Your task to perform on an android device: open app "DoorDash - Dasher" (install if not already installed) Image 0: 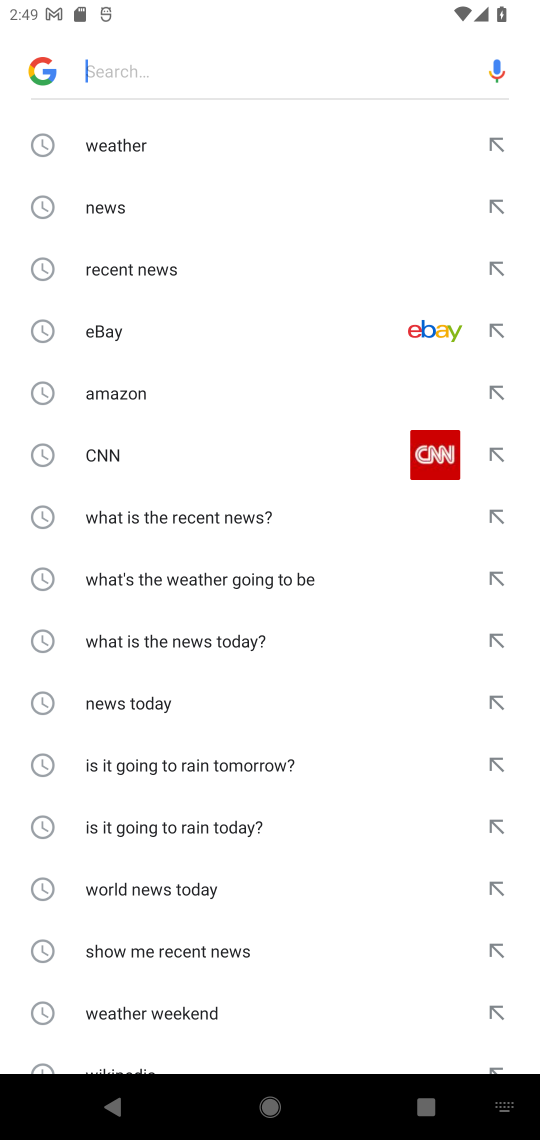
Step 0: press home button
Your task to perform on an android device: open app "DoorDash - Dasher" (install if not already installed) Image 1: 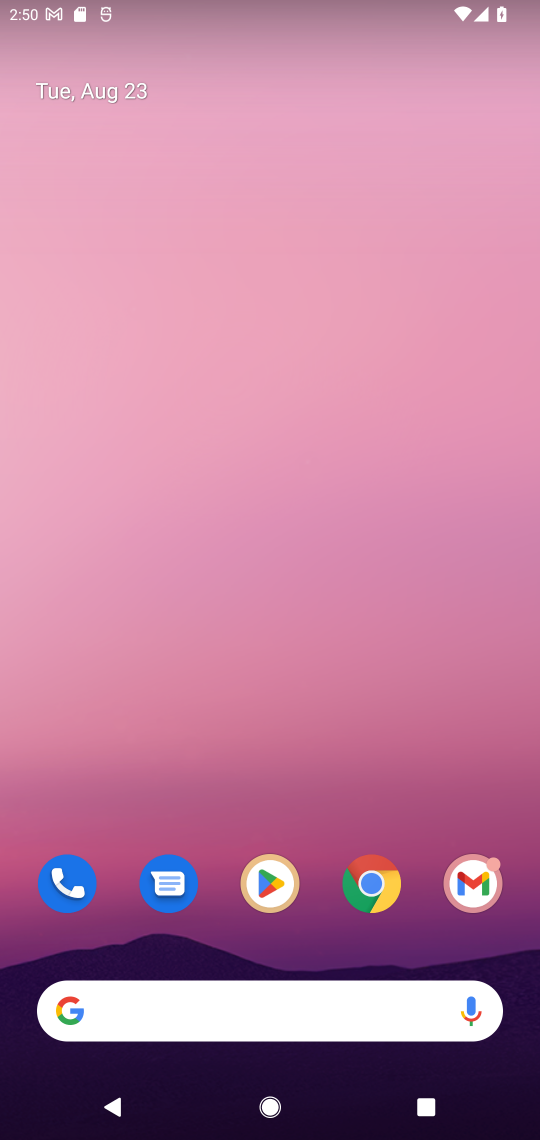
Step 1: drag from (193, 313) to (193, 245)
Your task to perform on an android device: open app "DoorDash - Dasher" (install if not already installed) Image 2: 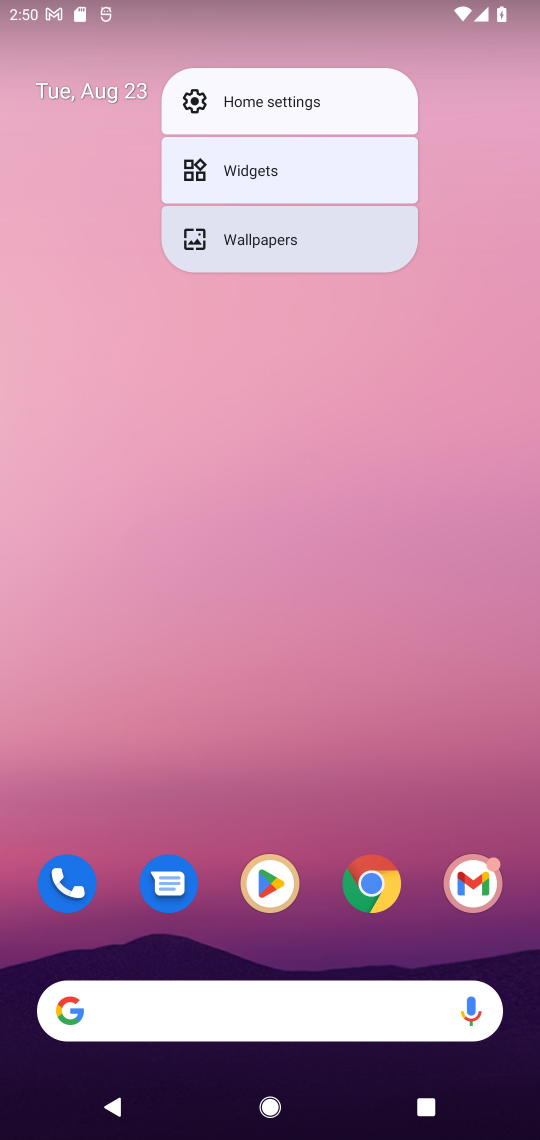
Step 2: click (205, 203)
Your task to perform on an android device: open app "DoorDash - Dasher" (install if not already installed) Image 3: 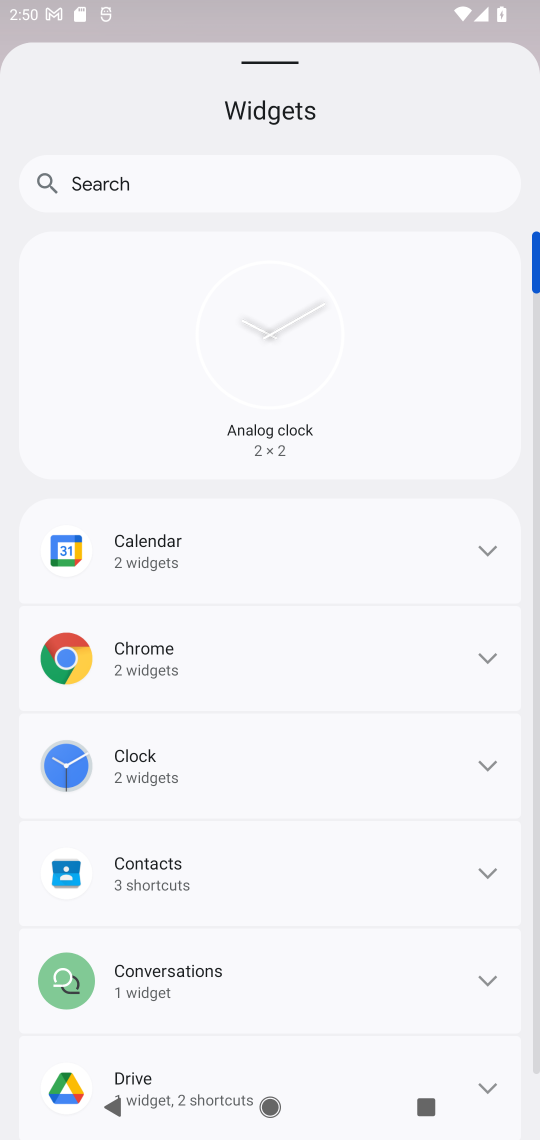
Step 3: press home button
Your task to perform on an android device: open app "DoorDash - Dasher" (install if not already installed) Image 4: 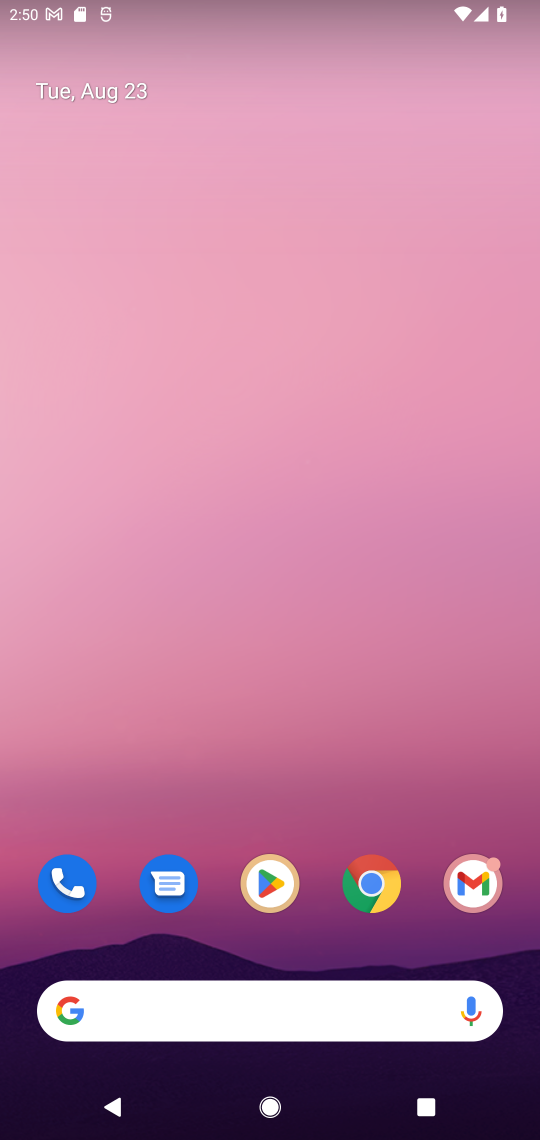
Step 4: drag from (260, 726) to (225, 339)
Your task to perform on an android device: open app "DoorDash - Dasher" (install if not already installed) Image 5: 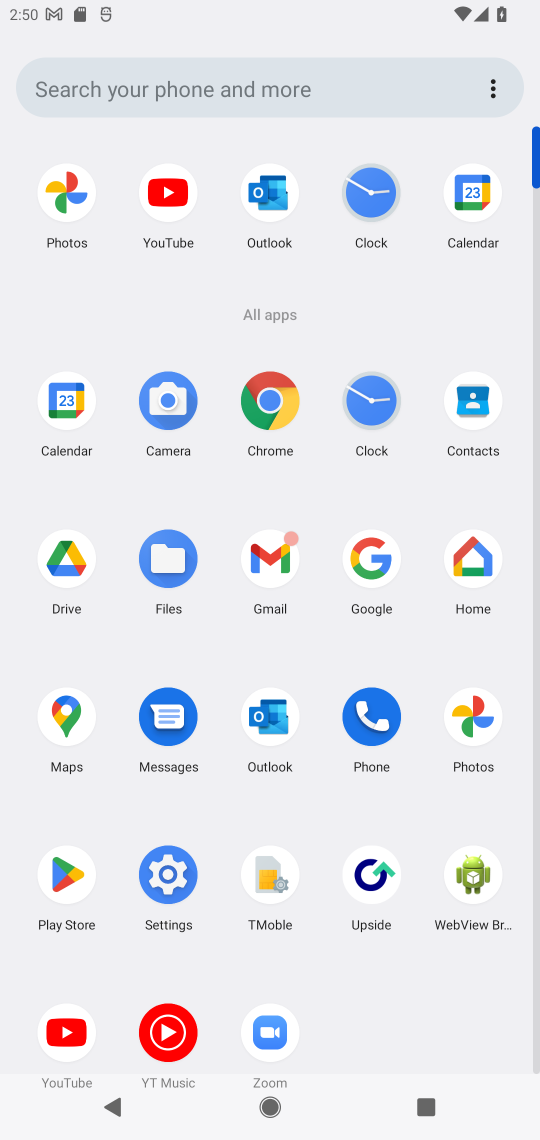
Step 5: click (63, 884)
Your task to perform on an android device: open app "DoorDash - Dasher" (install if not already installed) Image 6: 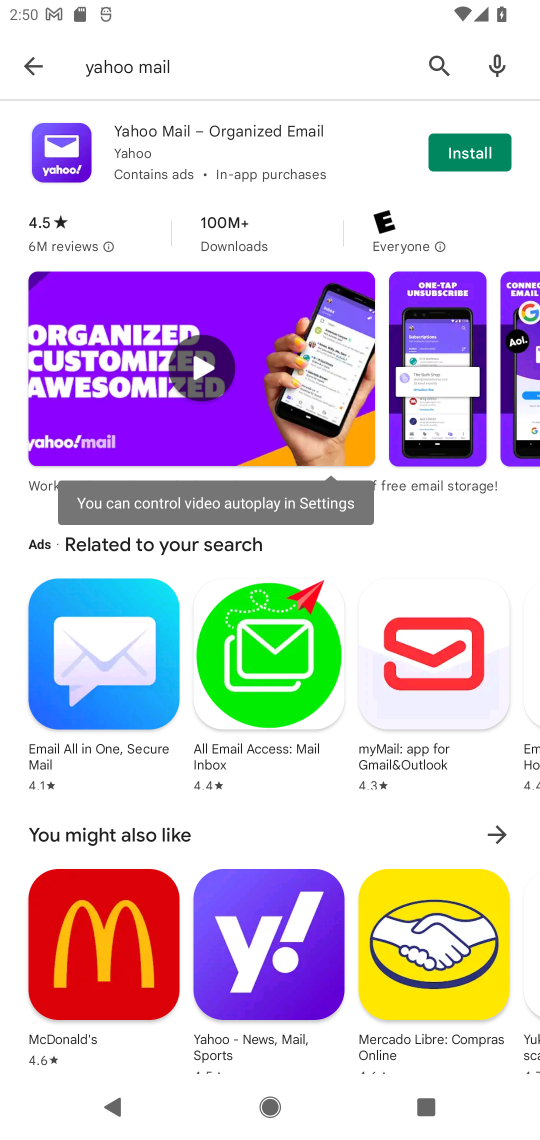
Step 6: click (443, 61)
Your task to perform on an android device: open app "DoorDash - Dasher" (install if not already installed) Image 7: 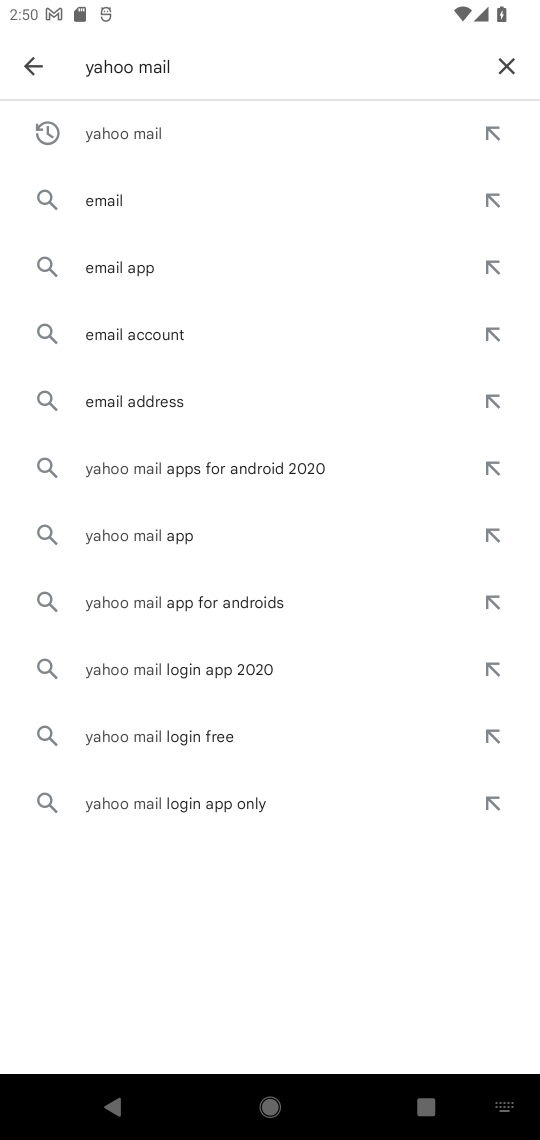
Step 7: click (505, 75)
Your task to perform on an android device: open app "DoorDash - Dasher" (install if not already installed) Image 8: 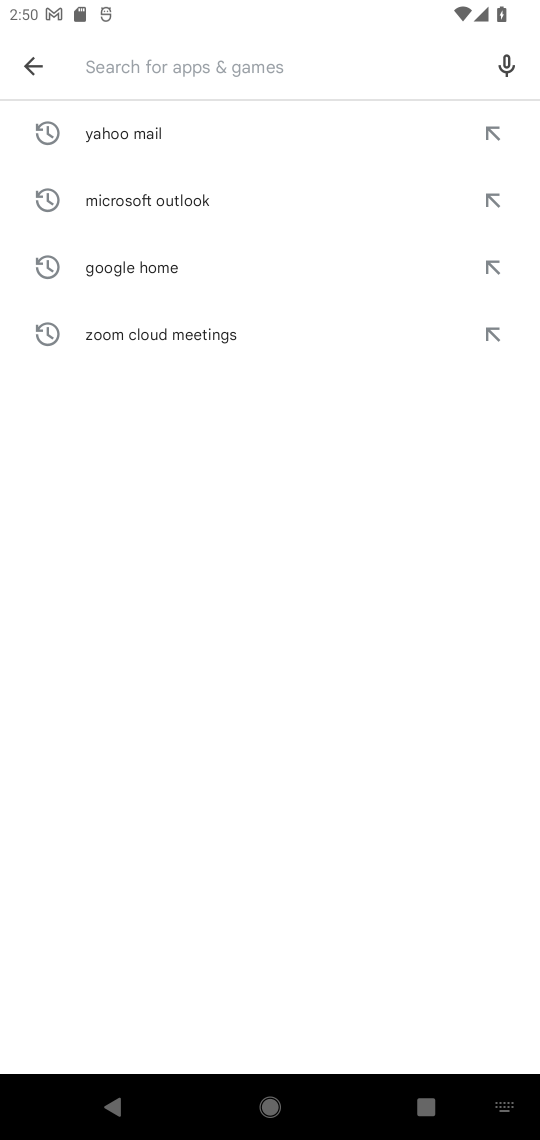
Step 8: type "DoorDash - Dasher"
Your task to perform on an android device: open app "DoorDash - Dasher" (install if not already installed) Image 9: 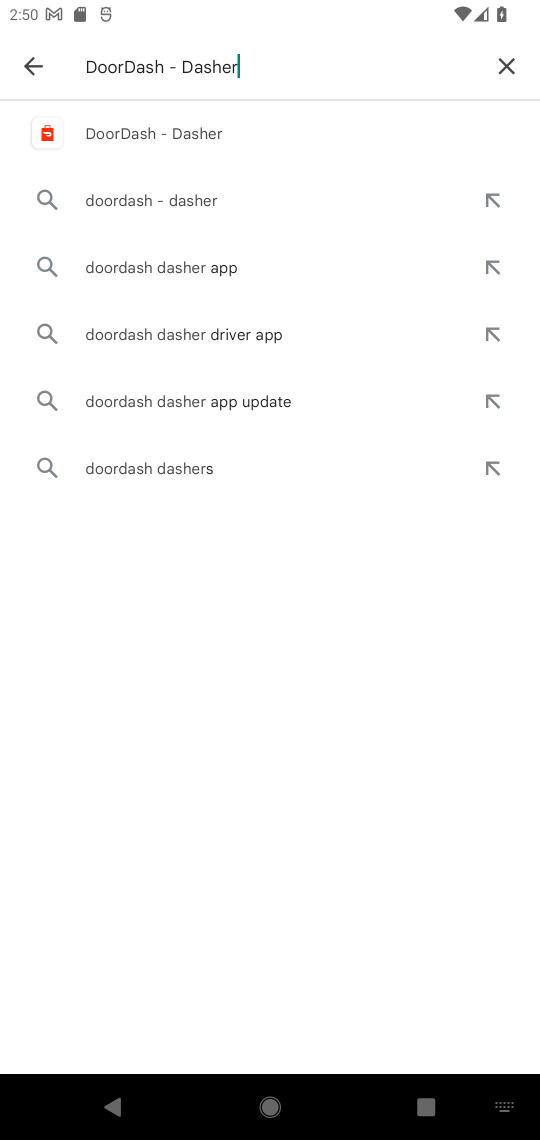
Step 9: click (153, 140)
Your task to perform on an android device: open app "DoorDash - Dasher" (install if not already installed) Image 10: 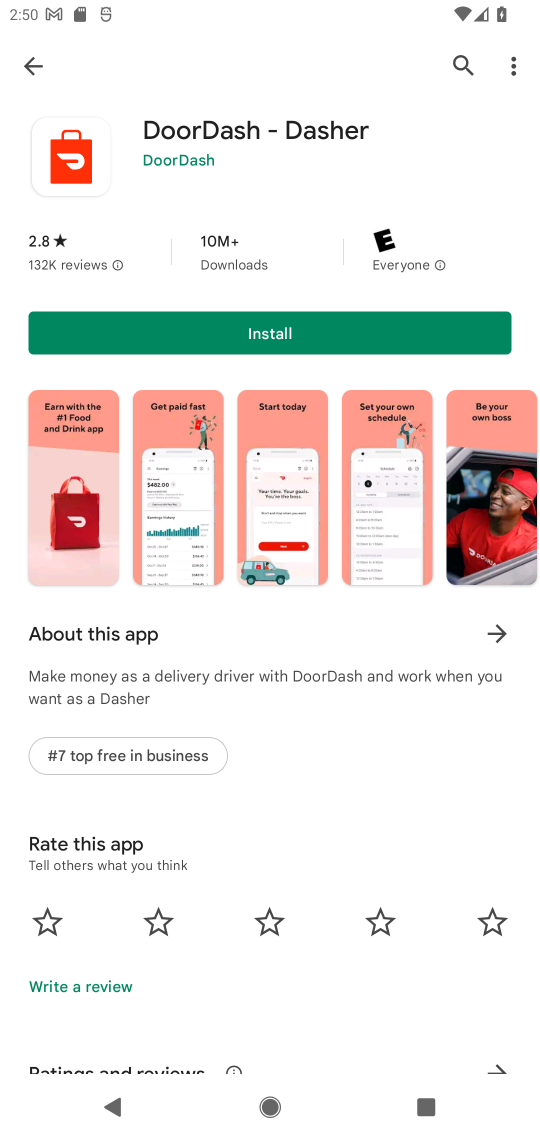
Step 10: click (275, 347)
Your task to perform on an android device: open app "DoorDash - Dasher" (install if not already installed) Image 11: 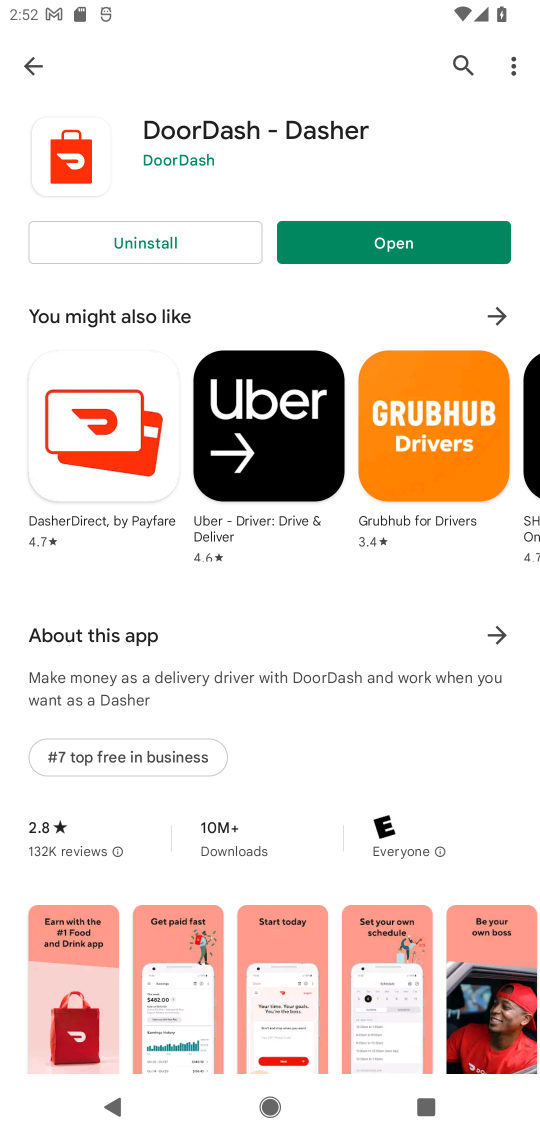
Step 11: click (377, 250)
Your task to perform on an android device: open app "DoorDash - Dasher" (install if not already installed) Image 12: 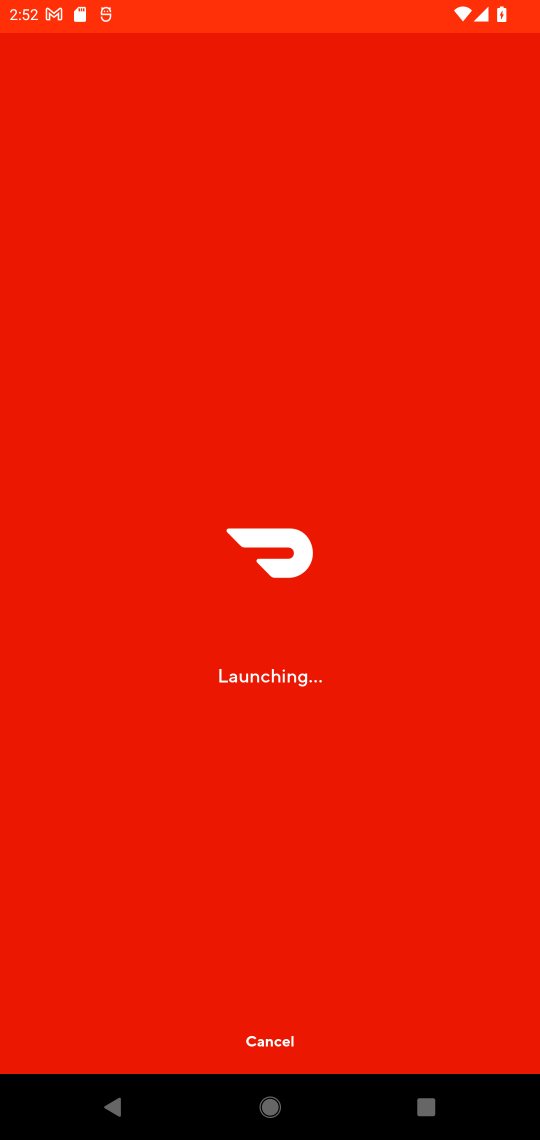
Step 12: task complete